Your task to perform on an android device: Go to display settings Image 0: 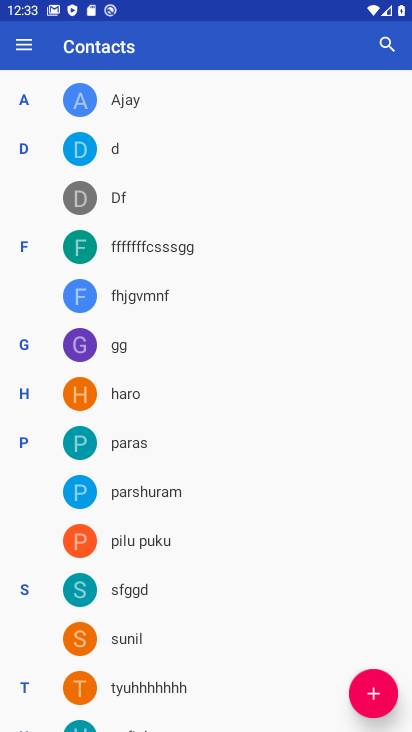
Step 0: press home button
Your task to perform on an android device: Go to display settings Image 1: 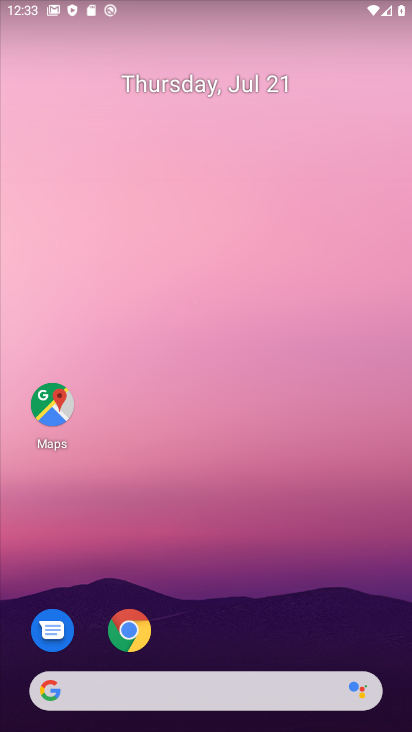
Step 1: drag from (290, 624) to (213, 282)
Your task to perform on an android device: Go to display settings Image 2: 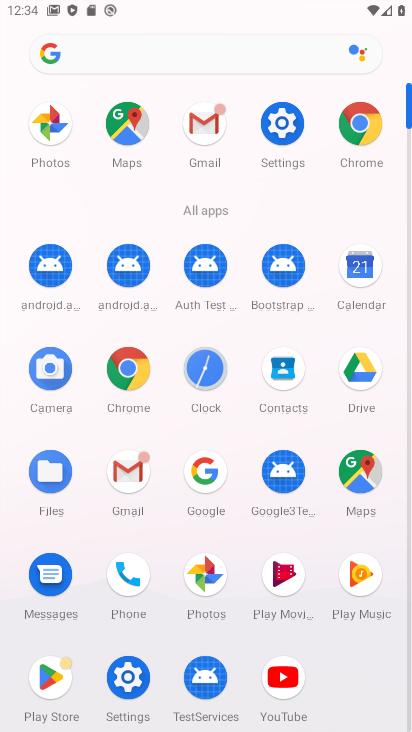
Step 2: click (277, 110)
Your task to perform on an android device: Go to display settings Image 3: 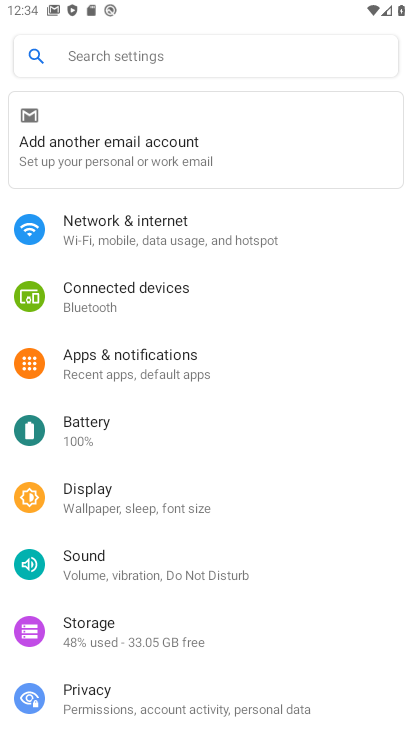
Step 3: click (198, 500)
Your task to perform on an android device: Go to display settings Image 4: 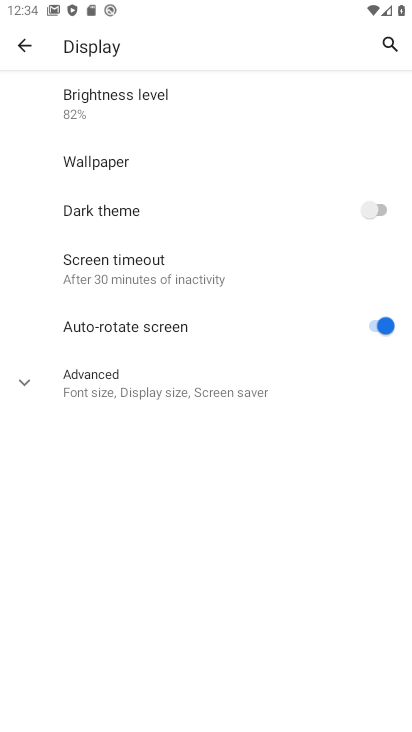
Step 4: task complete